Your task to perform on an android device: change timer sound Image 0: 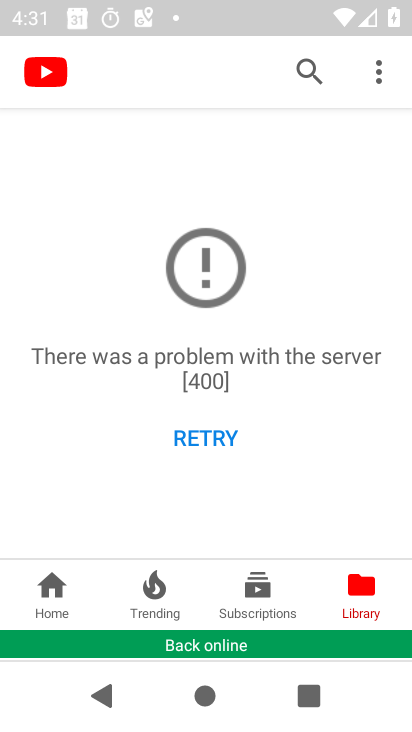
Step 0: press back button
Your task to perform on an android device: change timer sound Image 1: 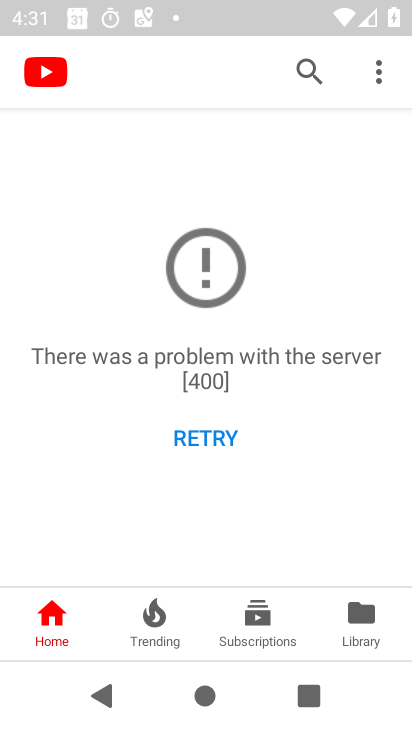
Step 1: press home button
Your task to perform on an android device: change timer sound Image 2: 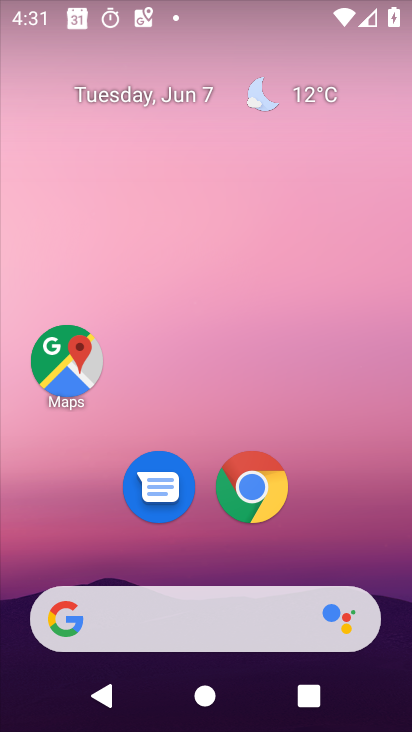
Step 2: drag from (146, 560) to (314, 0)
Your task to perform on an android device: change timer sound Image 3: 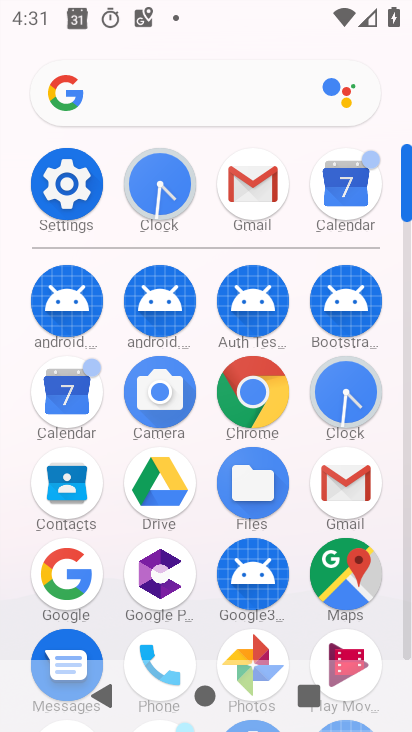
Step 3: click (68, 176)
Your task to perform on an android device: change timer sound Image 4: 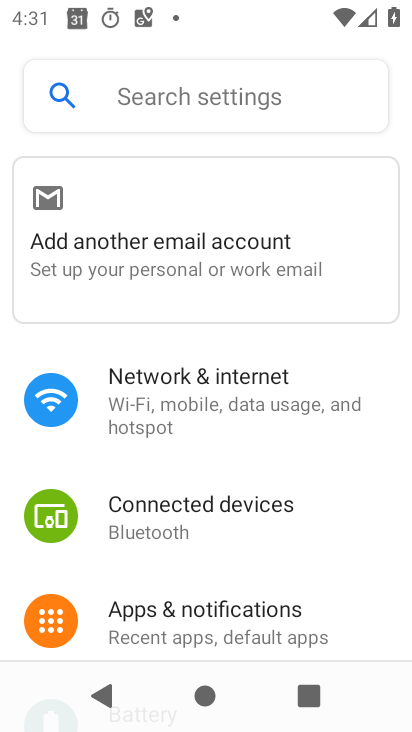
Step 4: drag from (205, 569) to (298, 46)
Your task to perform on an android device: change timer sound Image 5: 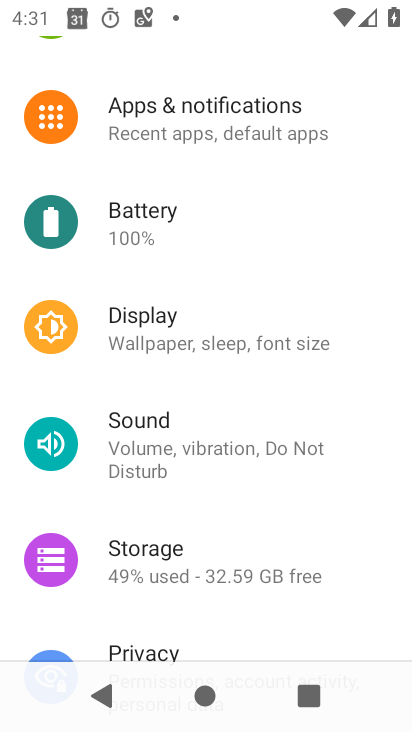
Step 5: press back button
Your task to perform on an android device: change timer sound Image 6: 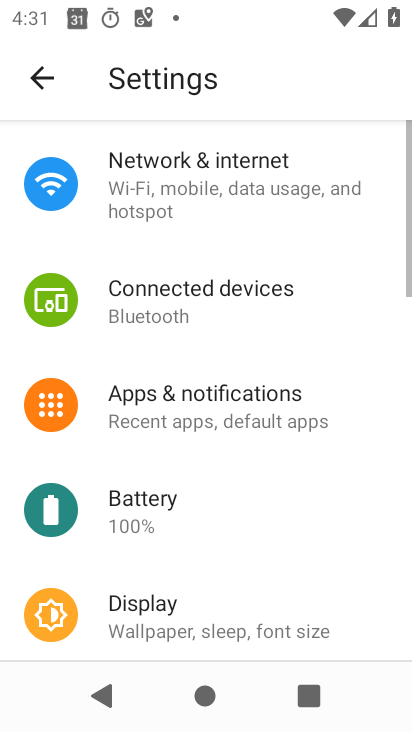
Step 6: press back button
Your task to perform on an android device: change timer sound Image 7: 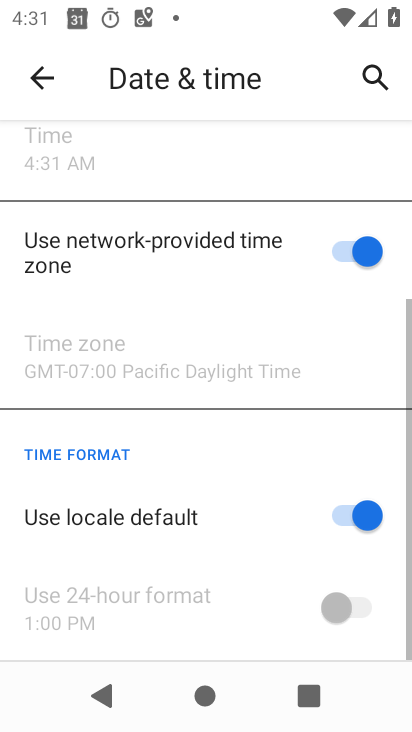
Step 7: press back button
Your task to perform on an android device: change timer sound Image 8: 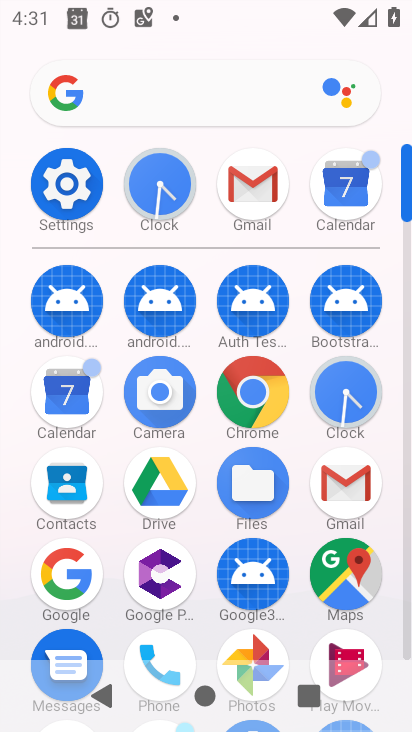
Step 8: click (340, 394)
Your task to perform on an android device: change timer sound Image 9: 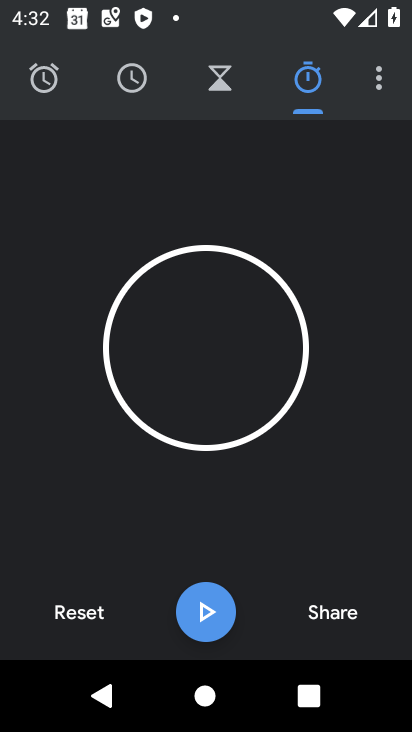
Step 9: click (363, 72)
Your task to perform on an android device: change timer sound Image 10: 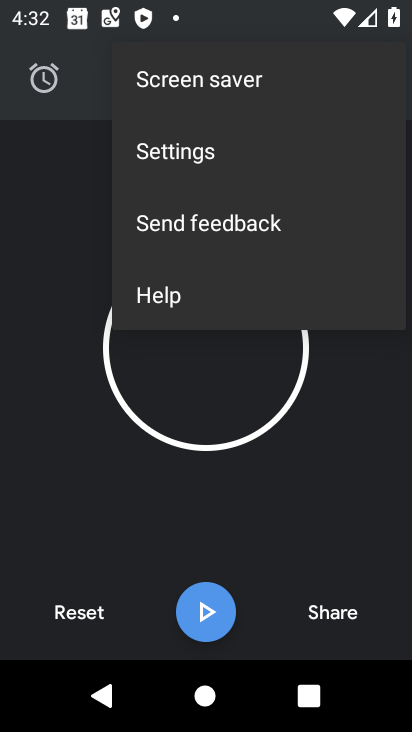
Step 10: click (227, 157)
Your task to perform on an android device: change timer sound Image 11: 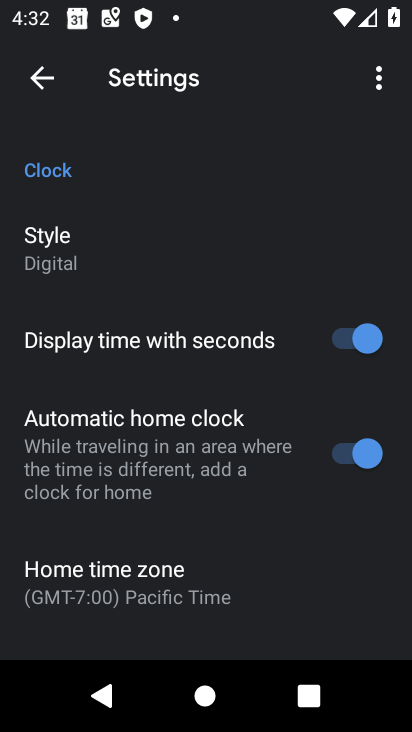
Step 11: click (95, 240)
Your task to perform on an android device: change timer sound Image 12: 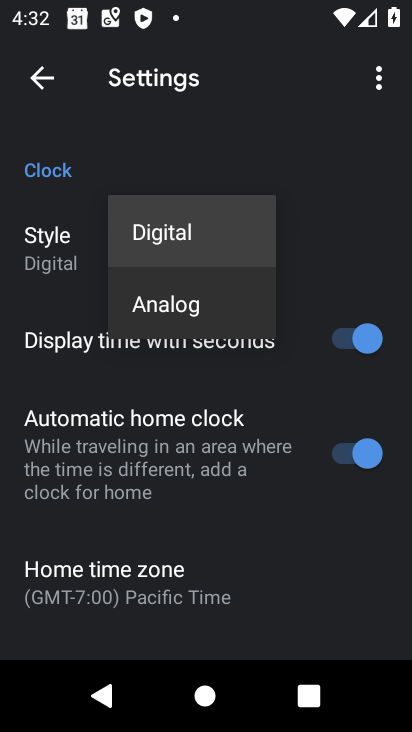
Step 12: click (244, 481)
Your task to perform on an android device: change timer sound Image 13: 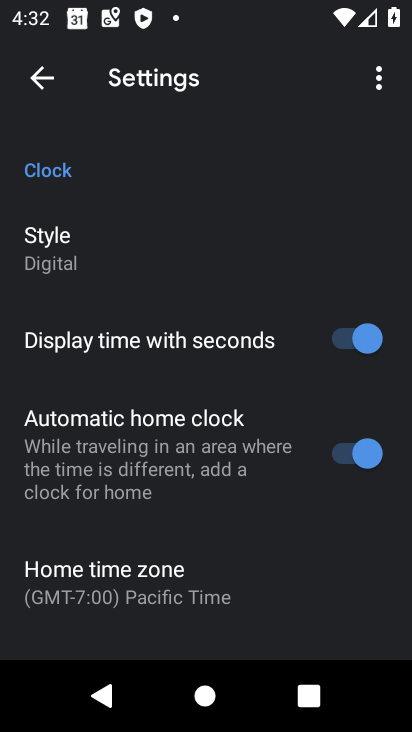
Step 13: drag from (173, 607) to (224, 123)
Your task to perform on an android device: change timer sound Image 14: 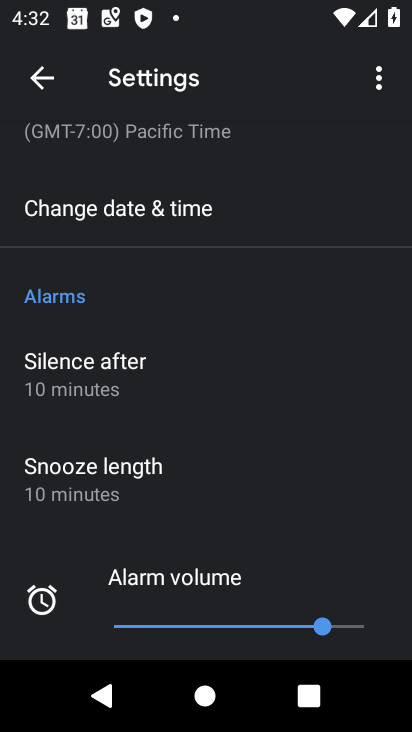
Step 14: drag from (176, 501) to (277, 131)
Your task to perform on an android device: change timer sound Image 15: 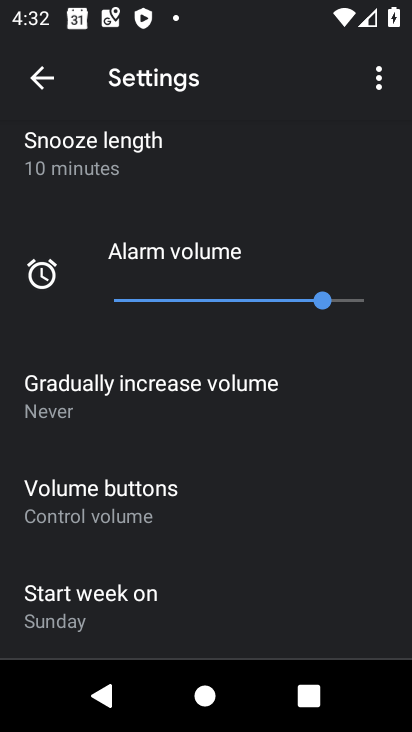
Step 15: drag from (129, 604) to (228, 212)
Your task to perform on an android device: change timer sound Image 16: 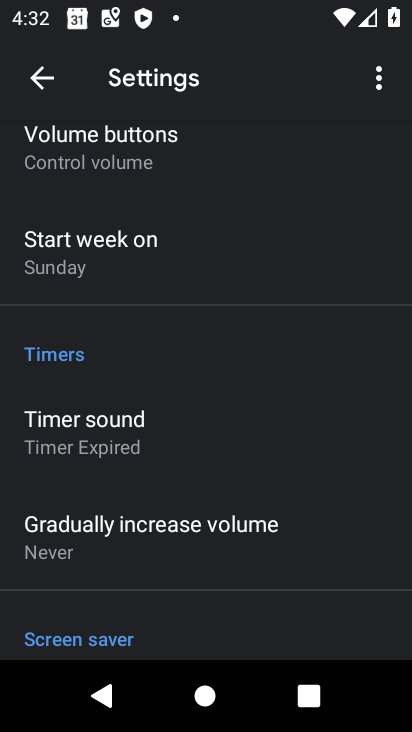
Step 16: click (86, 440)
Your task to perform on an android device: change timer sound Image 17: 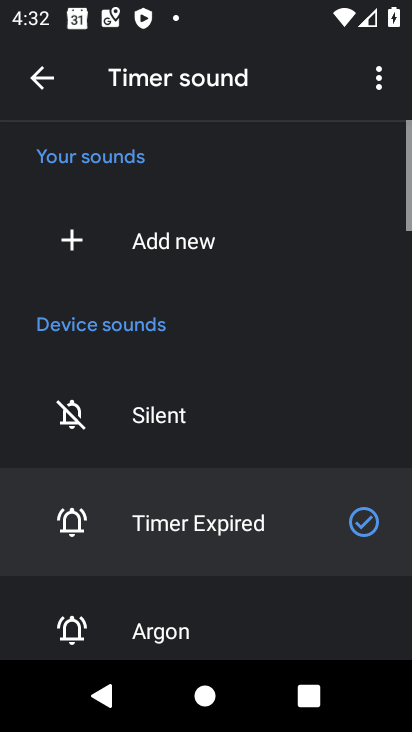
Step 17: click (166, 626)
Your task to perform on an android device: change timer sound Image 18: 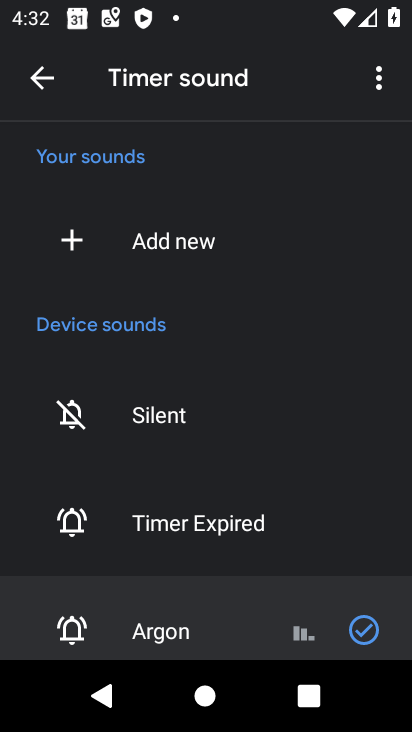
Step 18: task complete